Your task to perform on an android device: turn off picture-in-picture Image 0: 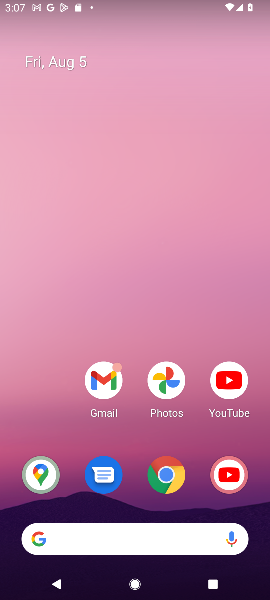
Step 0: press home button
Your task to perform on an android device: turn off picture-in-picture Image 1: 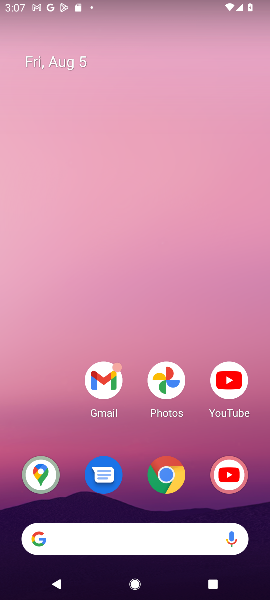
Step 1: drag from (66, 449) to (58, 166)
Your task to perform on an android device: turn off picture-in-picture Image 2: 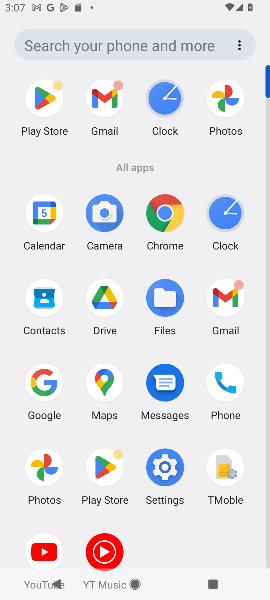
Step 2: click (166, 473)
Your task to perform on an android device: turn off picture-in-picture Image 3: 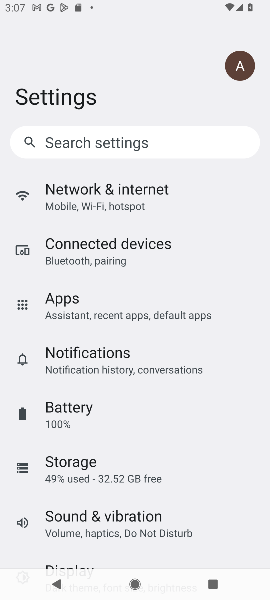
Step 3: drag from (237, 428) to (244, 358)
Your task to perform on an android device: turn off picture-in-picture Image 4: 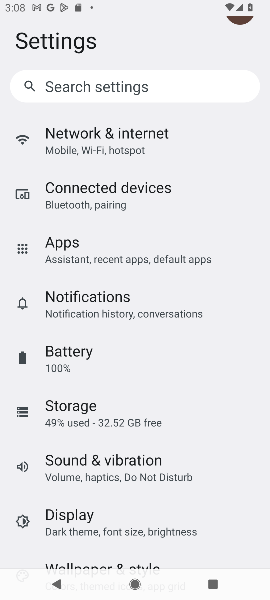
Step 4: drag from (221, 464) to (234, 368)
Your task to perform on an android device: turn off picture-in-picture Image 5: 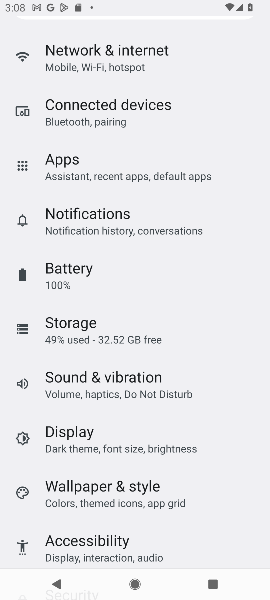
Step 5: drag from (231, 482) to (230, 384)
Your task to perform on an android device: turn off picture-in-picture Image 6: 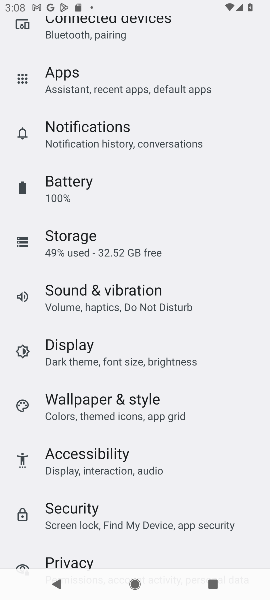
Step 6: drag from (231, 480) to (234, 369)
Your task to perform on an android device: turn off picture-in-picture Image 7: 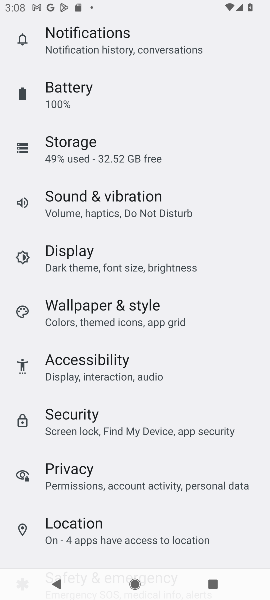
Step 7: drag from (236, 518) to (237, 406)
Your task to perform on an android device: turn off picture-in-picture Image 8: 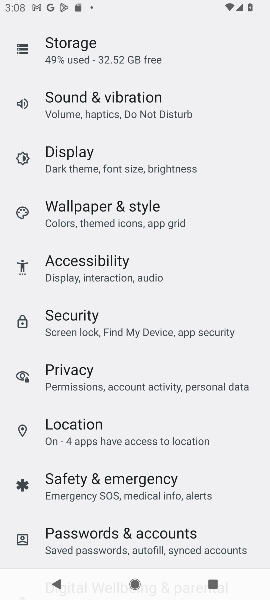
Step 8: drag from (226, 526) to (227, 382)
Your task to perform on an android device: turn off picture-in-picture Image 9: 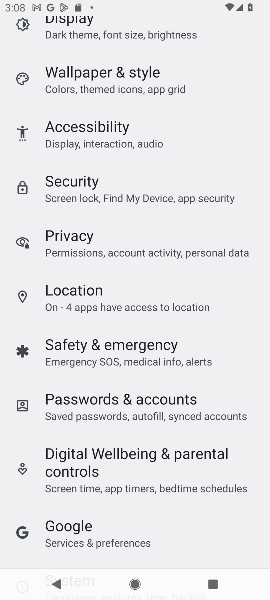
Step 9: drag from (232, 292) to (234, 382)
Your task to perform on an android device: turn off picture-in-picture Image 10: 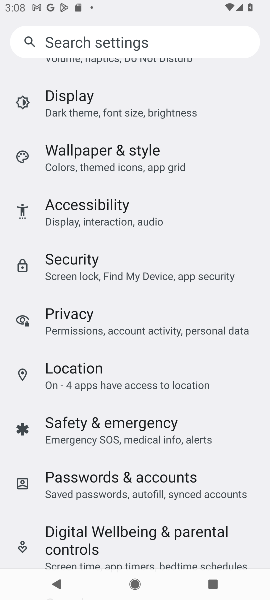
Step 10: drag from (249, 277) to (243, 388)
Your task to perform on an android device: turn off picture-in-picture Image 11: 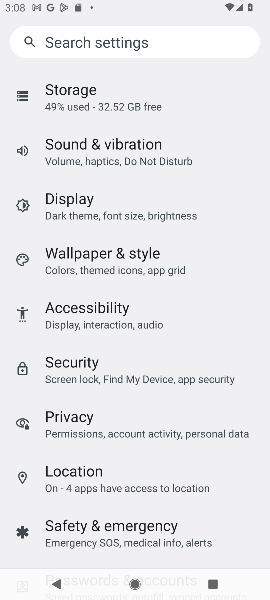
Step 11: drag from (243, 222) to (246, 392)
Your task to perform on an android device: turn off picture-in-picture Image 12: 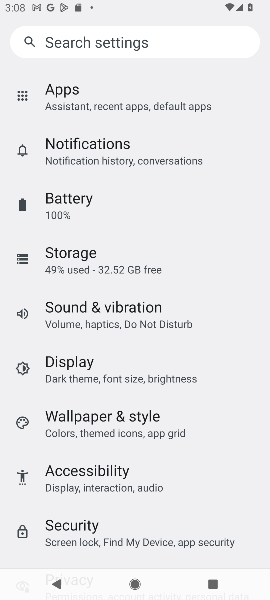
Step 12: drag from (229, 190) to (218, 431)
Your task to perform on an android device: turn off picture-in-picture Image 13: 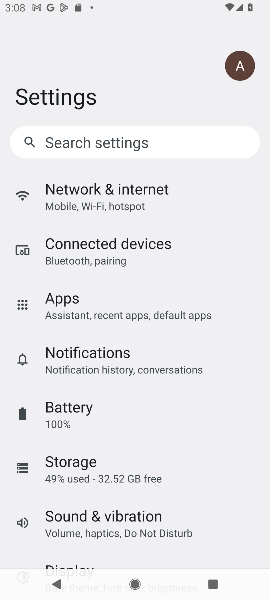
Step 13: drag from (227, 196) to (221, 405)
Your task to perform on an android device: turn off picture-in-picture Image 14: 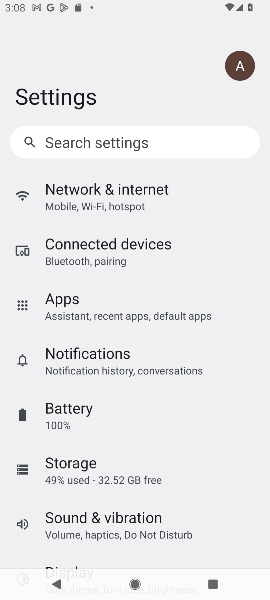
Step 14: click (179, 311)
Your task to perform on an android device: turn off picture-in-picture Image 15: 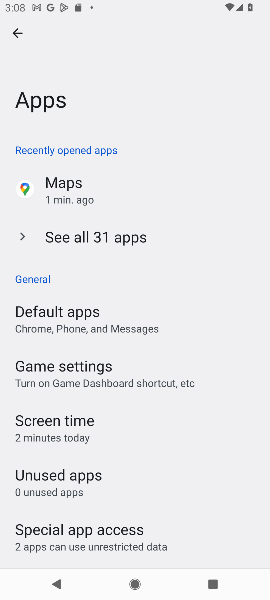
Step 15: drag from (215, 428) to (227, 333)
Your task to perform on an android device: turn off picture-in-picture Image 16: 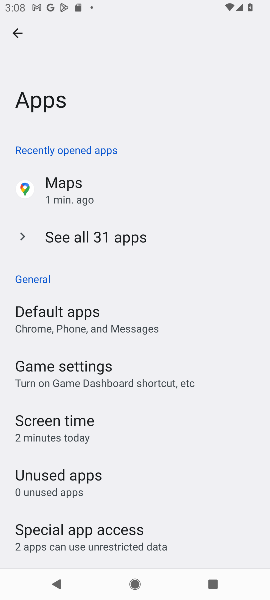
Step 16: click (178, 542)
Your task to perform on an android device: turn off picture-in-picture Image 17: 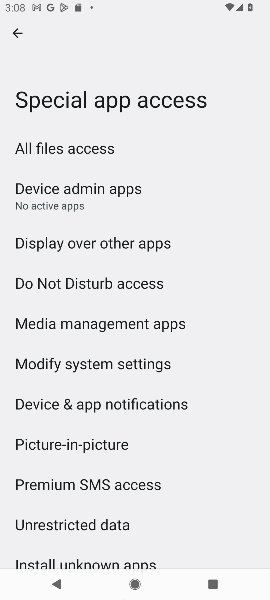
Step 17: click (140, 445)
Your task to perform on an android device: turn off picture-in-picture Image 18: 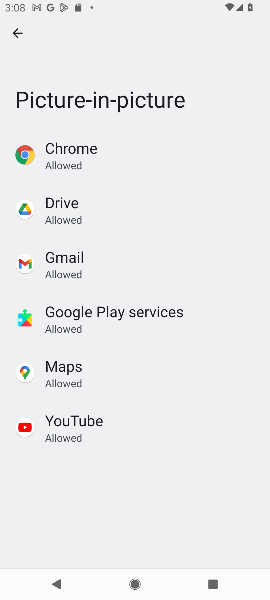
Step 18: click (97, 435)
Your task to perform on an android device: turn off picture-in-picture Image 19: 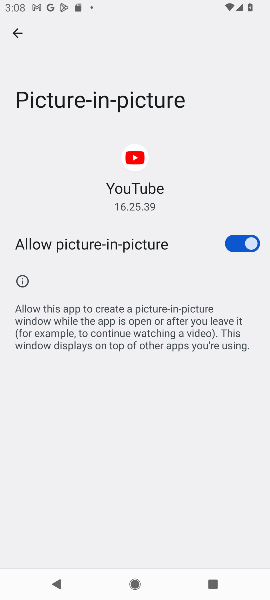
Step 19: click (242, 242)
Your task to perform on an android device: turn off picture-in-picture Image 20: 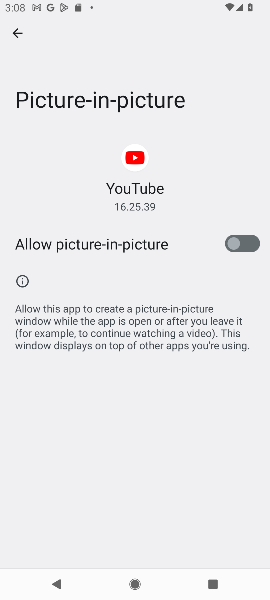
Step 20: task complete